Your task to perform on an android device: Search for floor lamps on article.com Image 0: 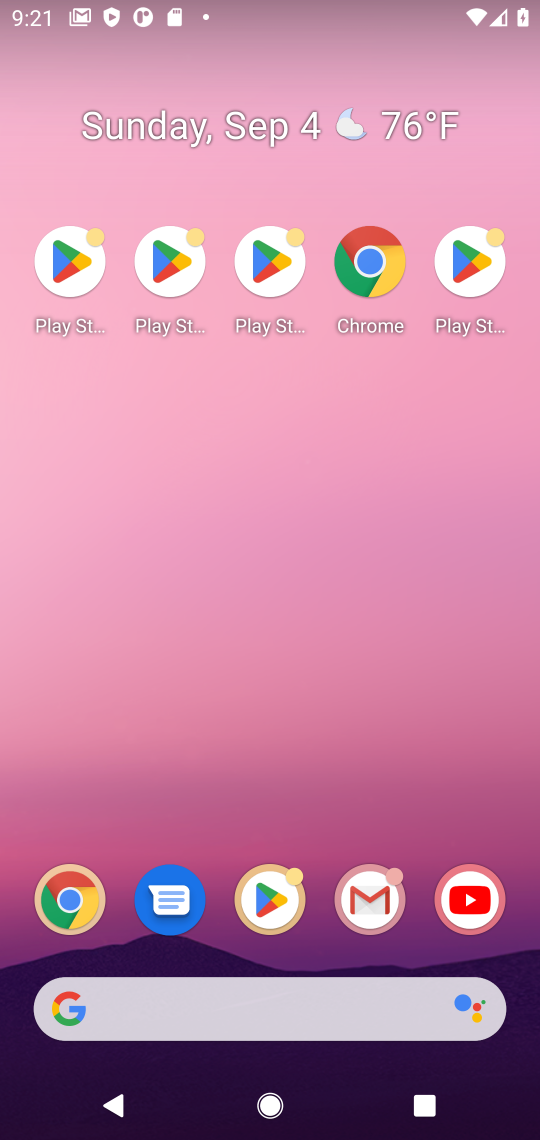
Step 0: drag from (299, 485) to (313, 5)
Your task to perform on an android device: Search for floor lamps on article.com Image 1: 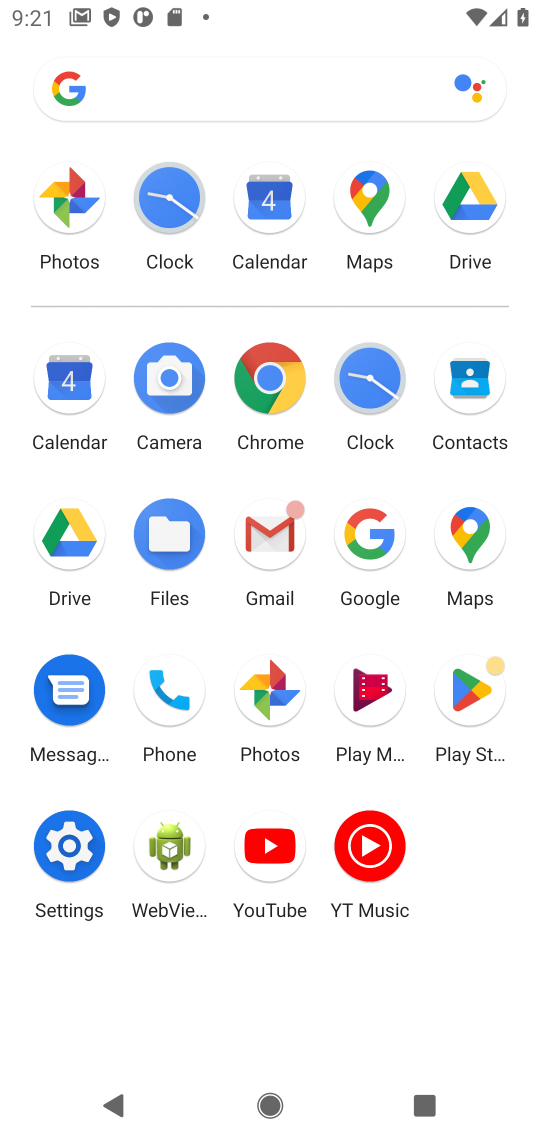
Step 1: click (281, 387)
Your task to perform on an android device: Search for floor lamps on article.com Image 2: 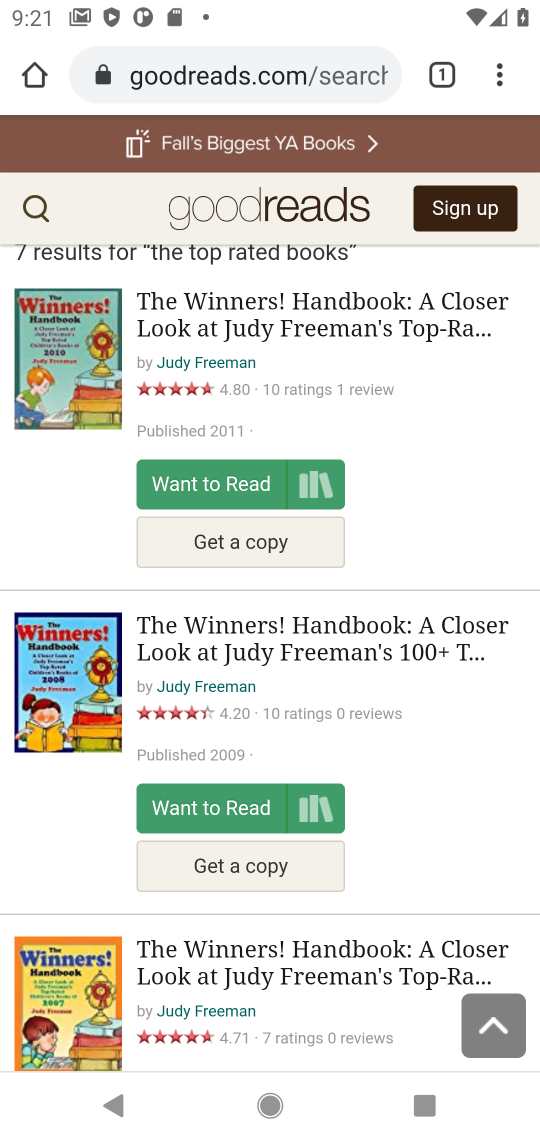
Step 2: click (433, 79)
Your task to perform on an android device: Search for floor lamps on article.com Image 3: 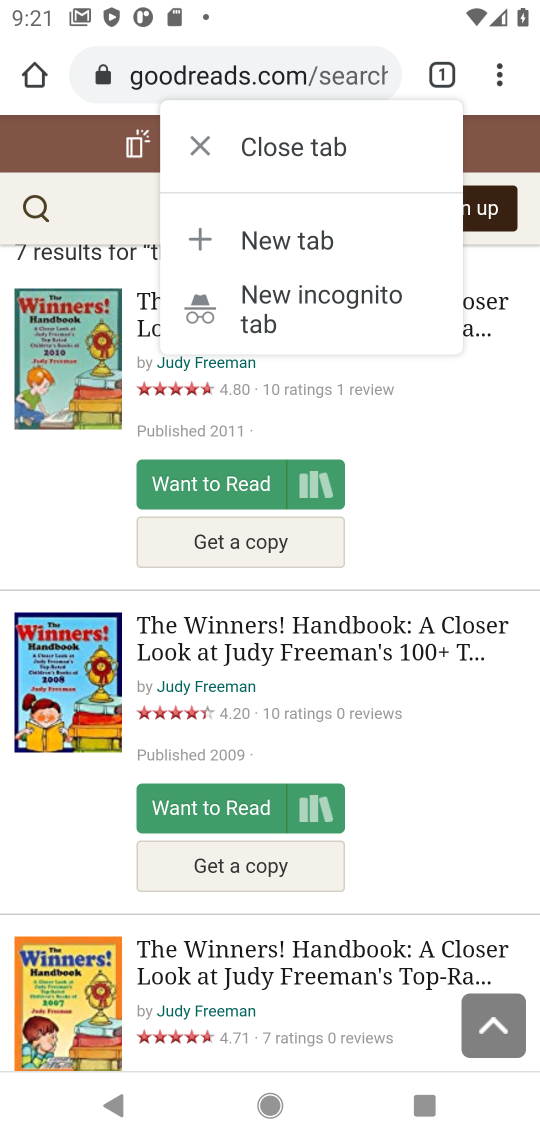
Step 3: click (259, 240)
Your task to perform on an android device: Search for floor lamps on article.com Image 4: 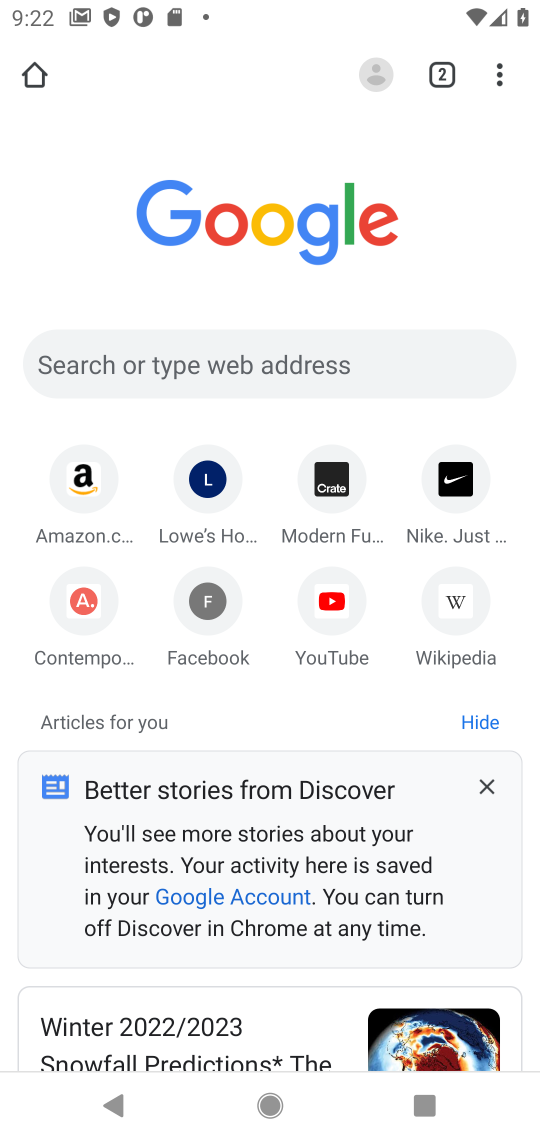
Step 4: click (188, 376)
Your task to perform on an android device: Search for floor lamps on article.com Image 5: 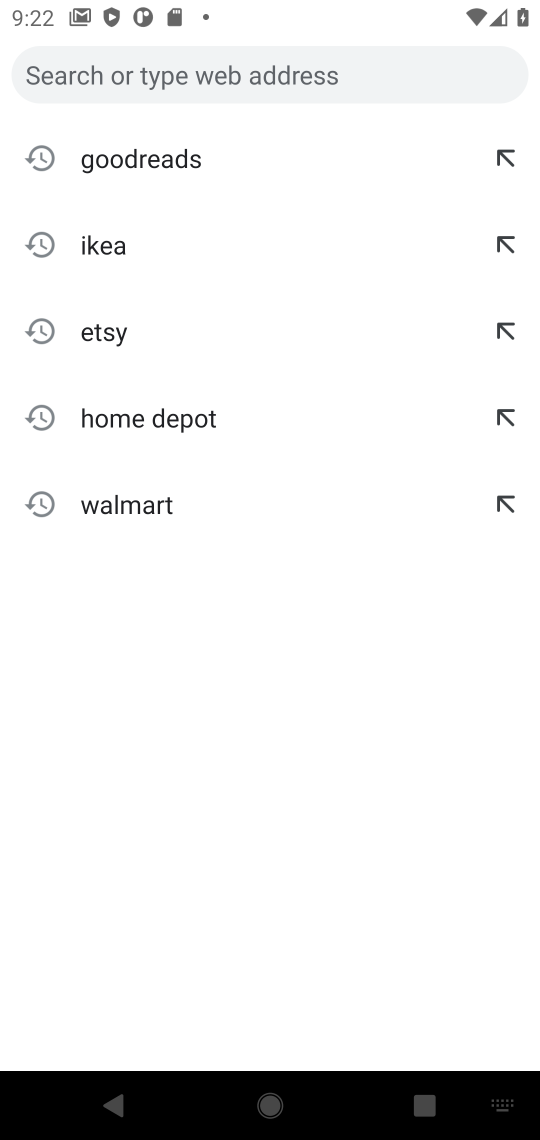
Step 5: type "article.com"
Your task to perform on an android device: Search for floor lamps on article.com Image 6: 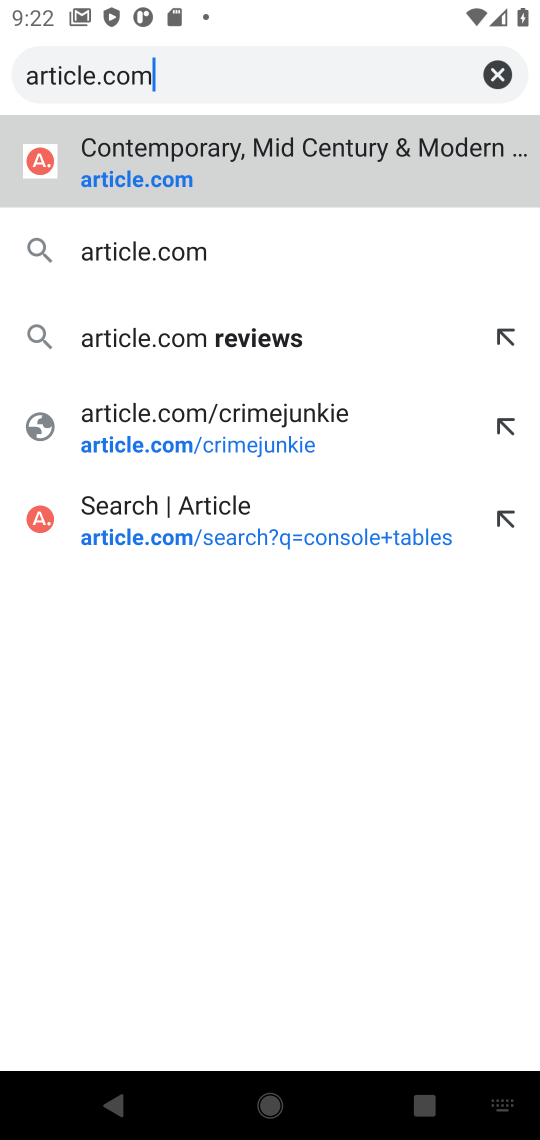
Step 6: click (114, 255)
Your task to perform on an android device: Search for floor lamps on article.com Image 7: 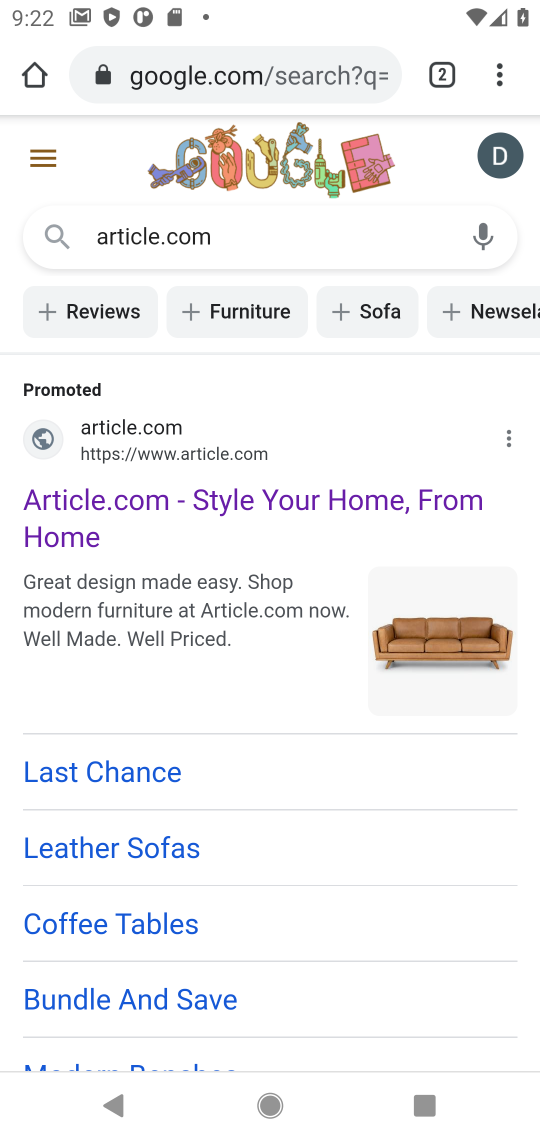
Step 7: click (136, 482)
Your task to perform on an android device: Search for floor lamps on article.com Image 8: 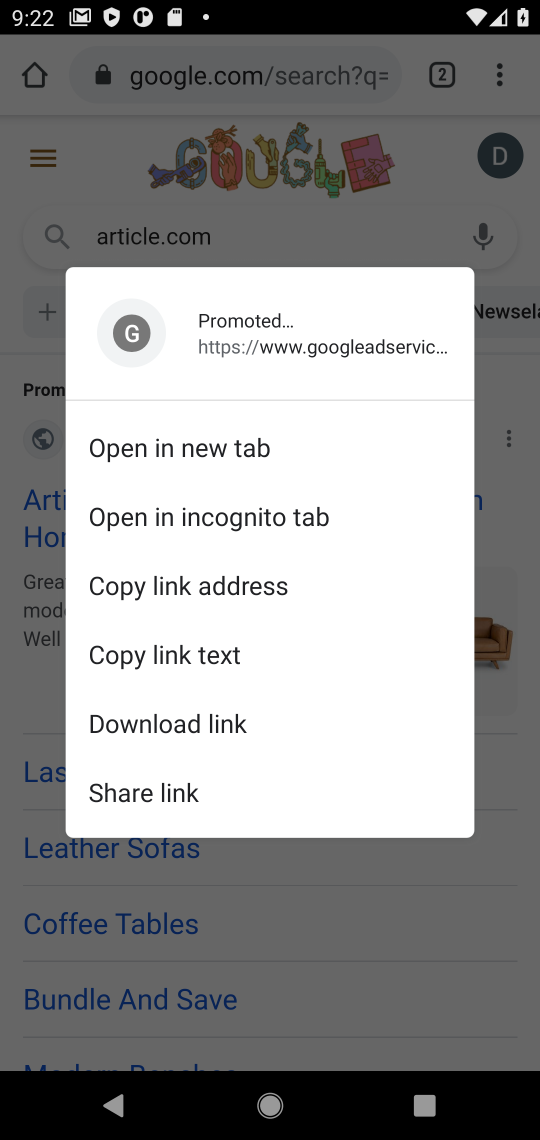
Step 8: click (500, 373)
Your task to perform on an android device: Search for floor lamps on article.com Image 9: 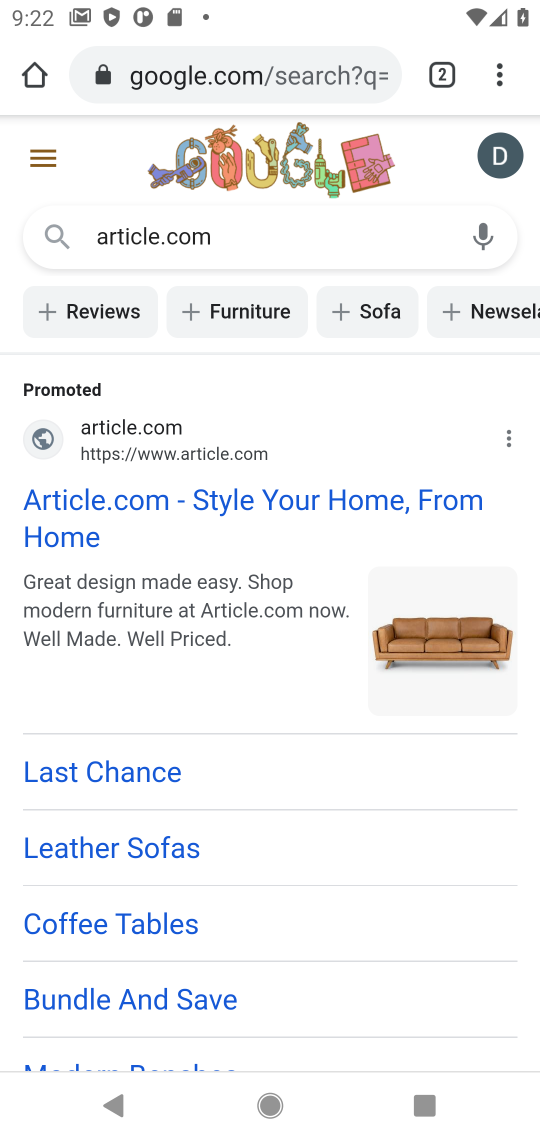
Step 9: click (82, 478)
Your task to perform on an android device: Search for floor lamps on article.com Image 10: 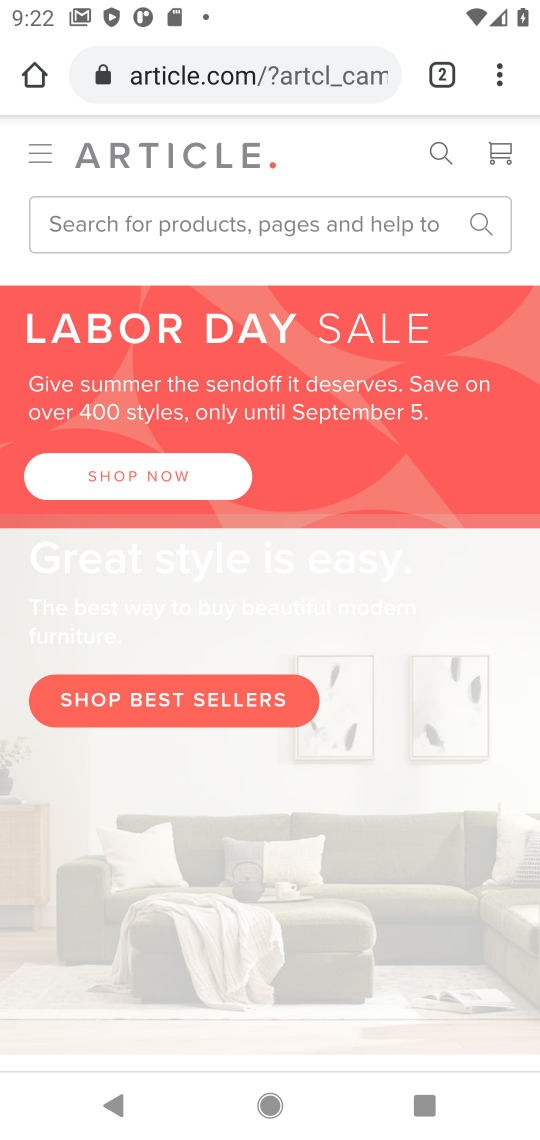
Step 10: click (141, 528)
Your task to perform on an android device: Search for floor lamps on article.com Image 11: 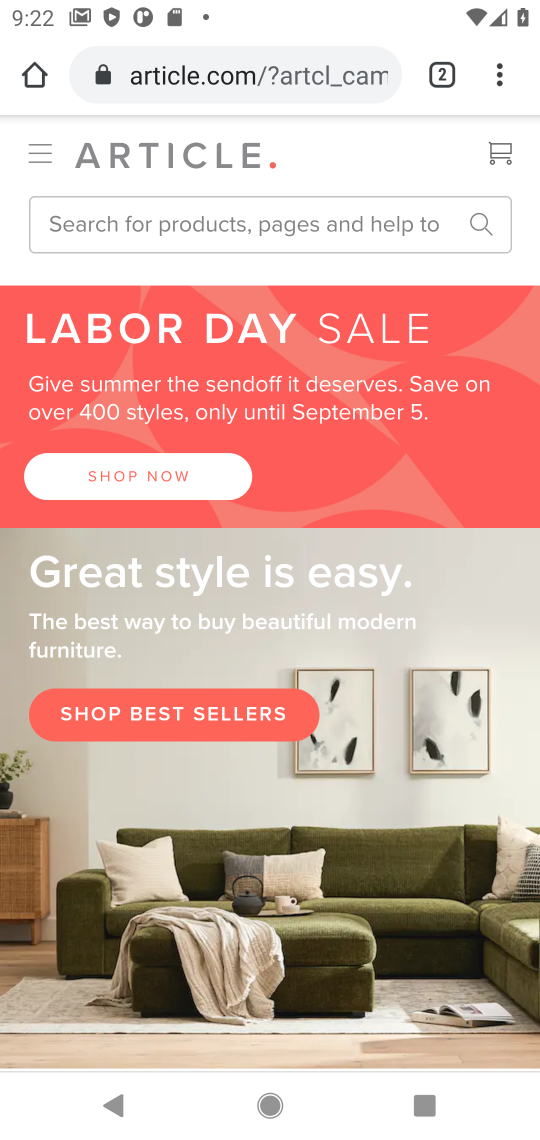
Step 11: task complete